Your task to perform on an android device: toggle show notifications on the lock screen Image 0: 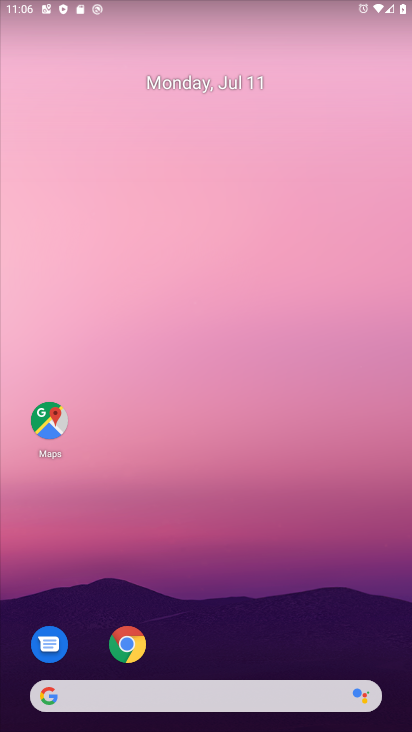
Step 0: press home button
Your task to perform on an android device: toggle show notifications on the lock screen Image 1: 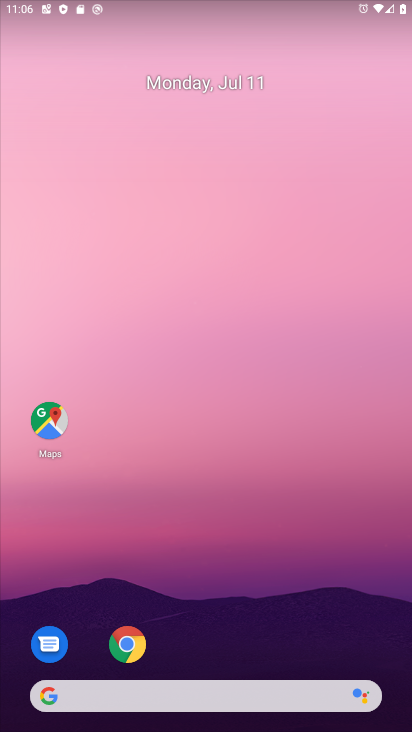
Step 1: drag from (204, 654) to (240, 36)
Your task to perform on an android device: toggle show notifications on the lock screen Image 2: 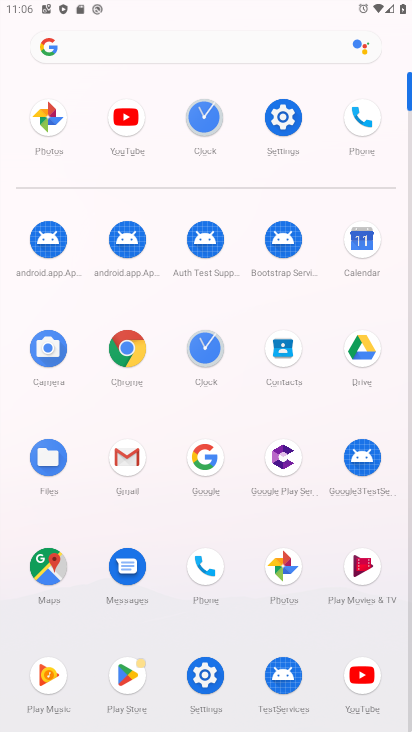
Step 2: click (285, 111)
Your task to perform on an android device: toggle show notifications on the lock screen Image 3: 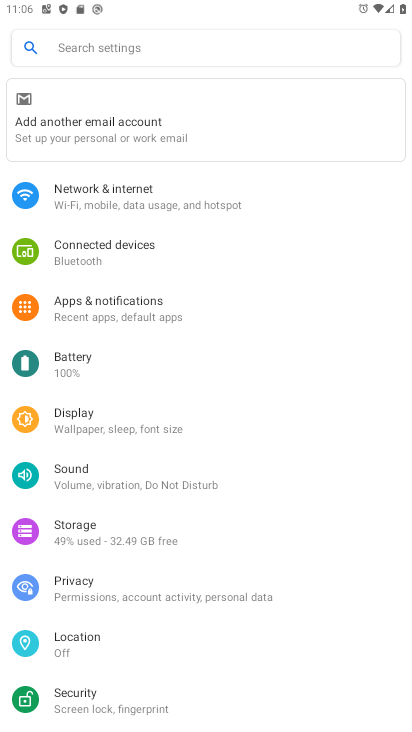
Step 3: click (185, 296)
Your task to perform on an android device: toggle show notifications on the lock screen Image 4: 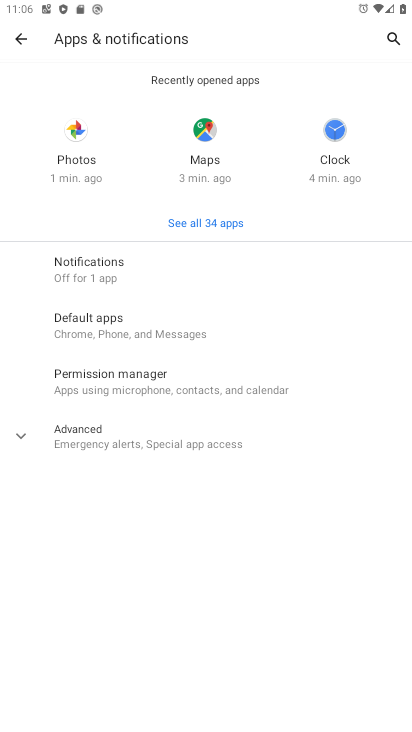
Step 4: click (138, 267)
Your task to perform on an android device: toggle show notifications on the lock screen Image 5: 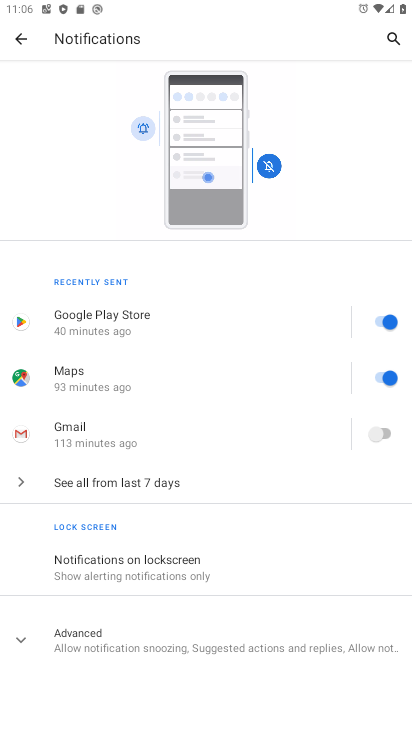
Step 5: click (225, 561)
Your task to perform on an android device: toggle show notifications on the lock screen Image 6: 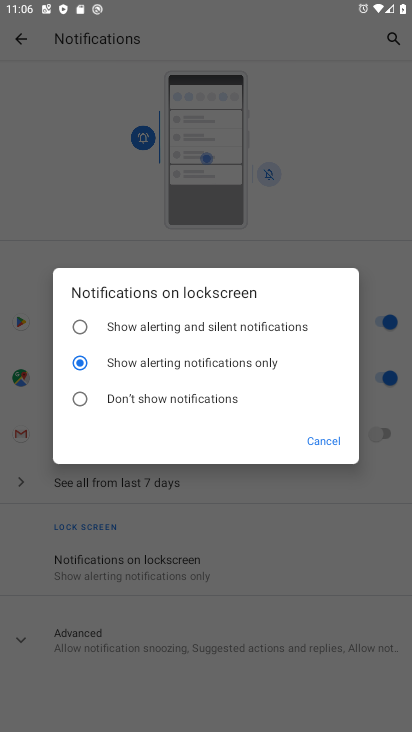
Step 6: click (79, 323)
Your task to perform on an android device: toggle show notifications on the lock screen Image 7: 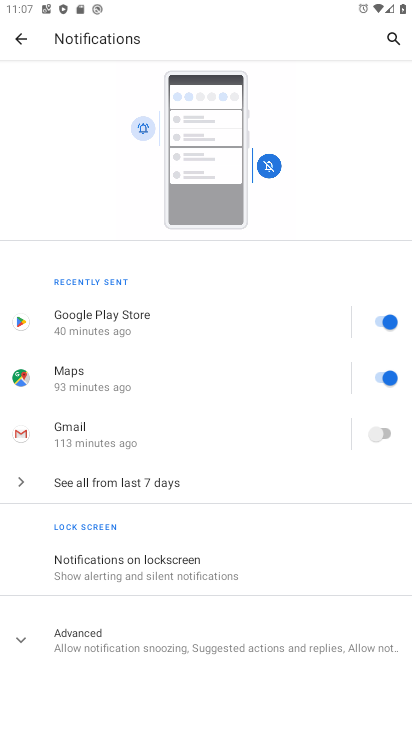
Step 7: click (213, 562)
Your task to perform on an android device: toggle show notifications on the lock screen Image 8: 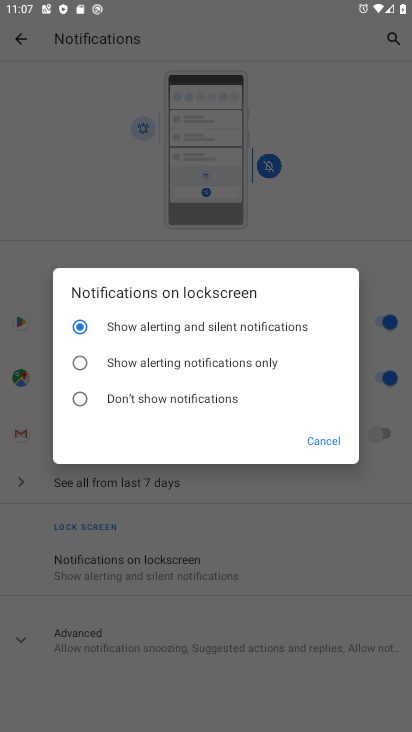
Step 8: click (117, 329)
Your task to perform on an android device: toggle show notifications on the lock screen Image 9: 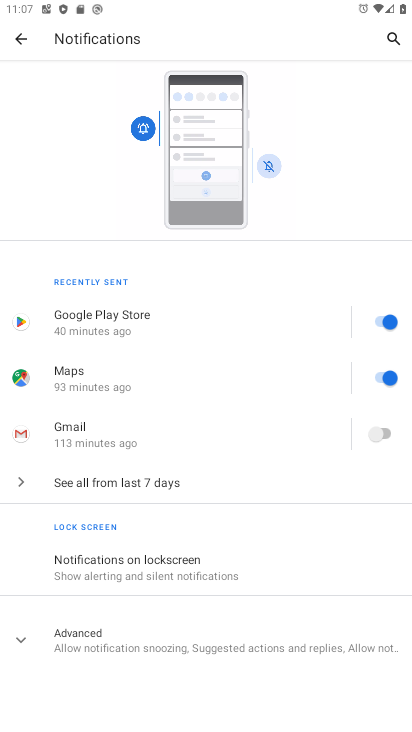
Step 9: task complete